Your task to perform on an android device: Search for seafood restaurants on Google Maps Image 0: 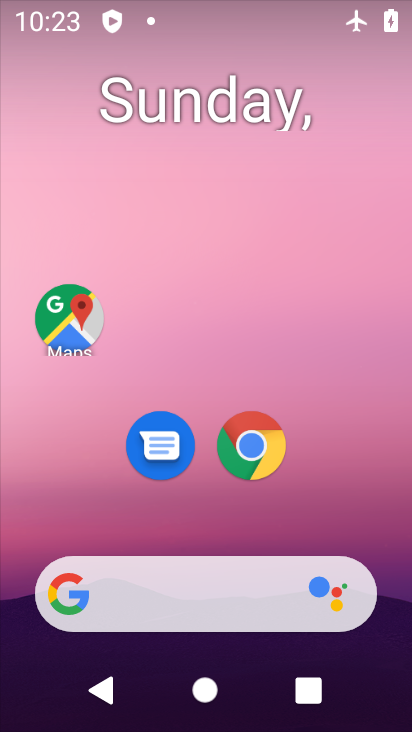
Step 0: click (67, 324)
Your task to perform on an android device: Search for seafood restaurants on Google Maps Image 1: 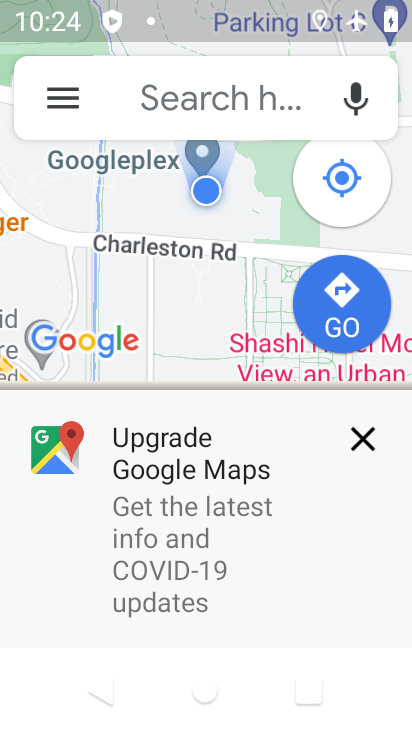
Step 1: click (187, 105)
Your task to perform on an android device: Search for seafood restaurants on Google Maps Image 2: 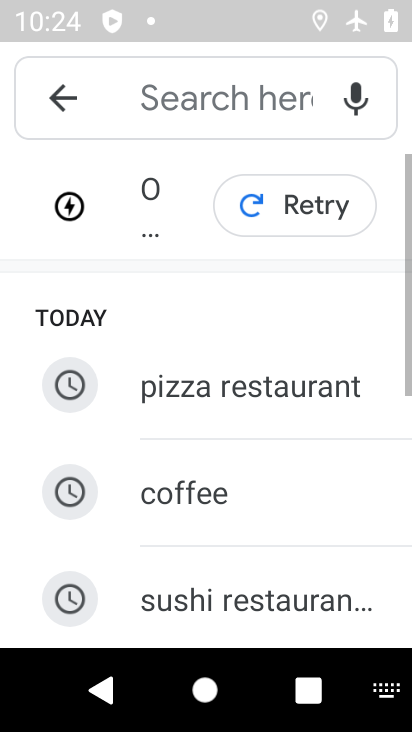
Step 2: drag from (185, 599) to (150, 18)
Your task to perform on an android device: Search for seafood restaurants on Google Maps Image 3: 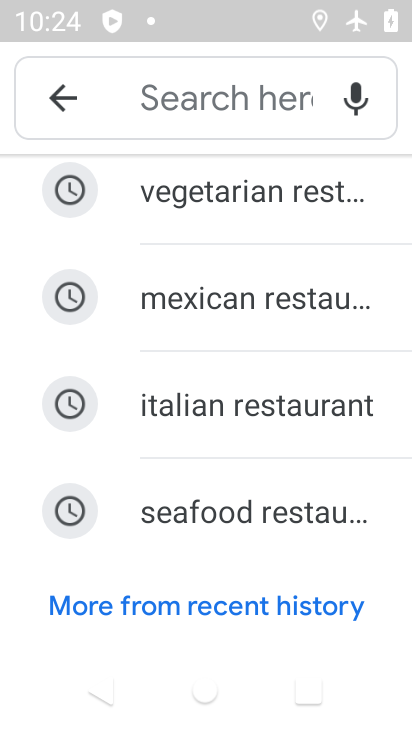
Step 3: click (202, 489)
Your task to perform on an android device: Search for seafood restaurants on Google Maps Image 4: 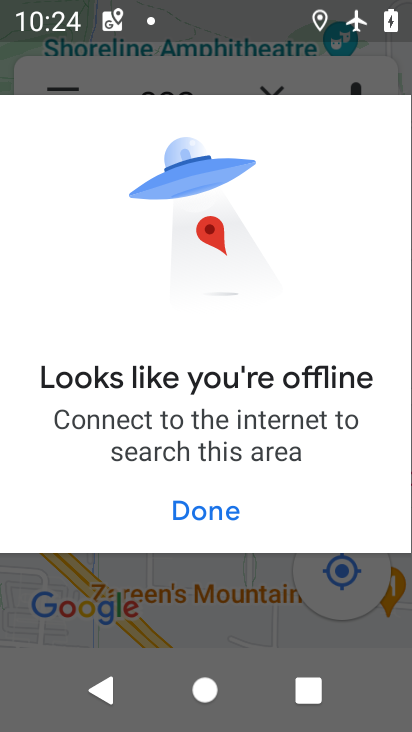
Step 4: task complete